Your task to perform on an android device: Open Google Image 0: 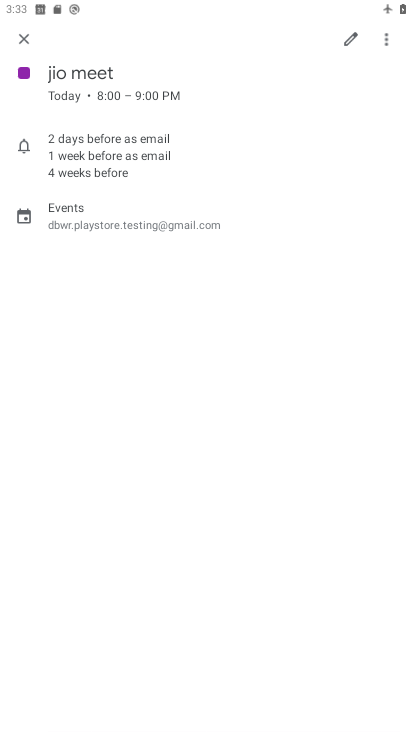
Step 0: press home button
Your task to perform on an android device: Open Google Image 1: 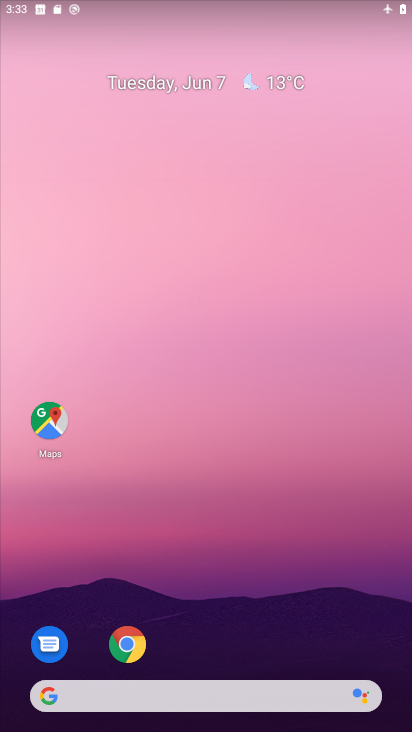
Step 1: drag from (343, 620) to (352, 240)
Your task to perform on an android device: Open Google Image 2: 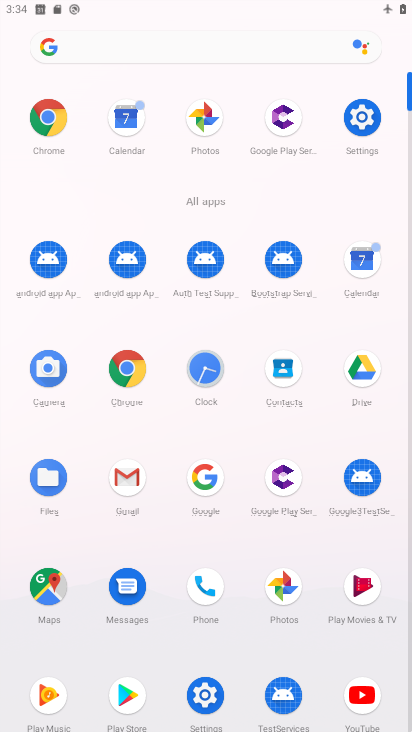
Step 2: click (198, 492)
Your task to perform on an android device: Open Google Image 3: 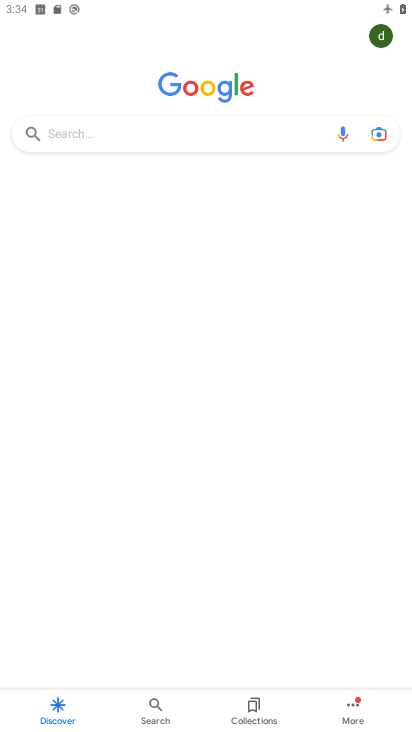
Step 3: task complete